Your task to perform on an android device: toggle sleep mode Image 0: 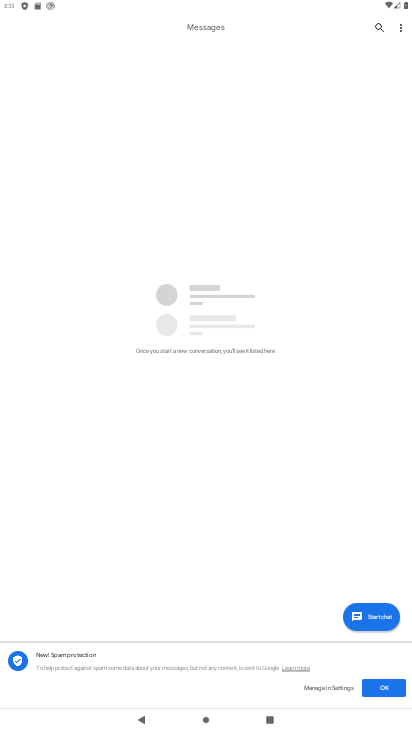
Step 0: press home button
Your task to perform on an android device: toggle sleep mode Image 1: 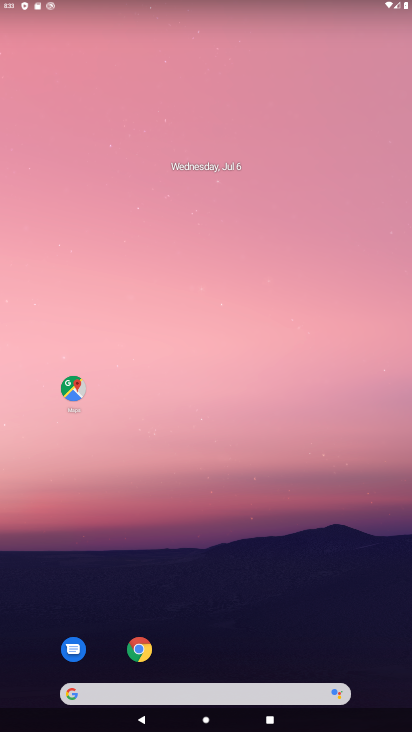
Step 1: drag from (219, 653) to (232, 18)
Your task to perform on an android device: toggle sleep mode Image 2: 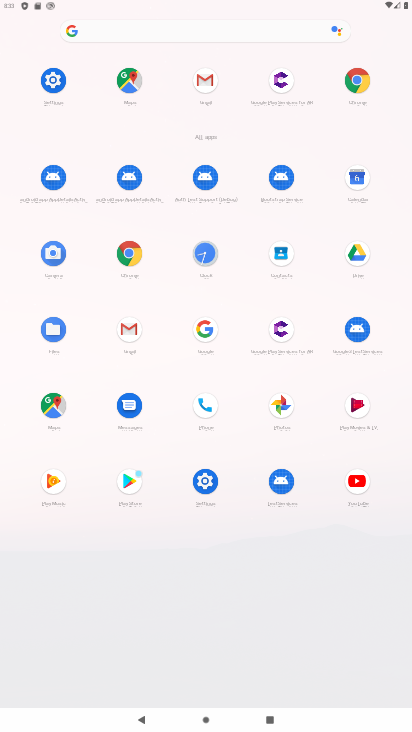
Step 2: click (202, 476)
Your task to perform on an android device: toggle sleep mode Image 3: 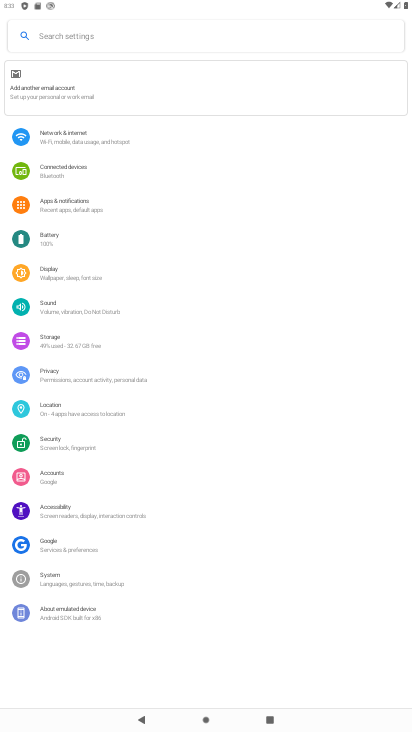
Step 3: click (63, 219)
Your task to perform on an android device: toggle sleep mode Image 4: 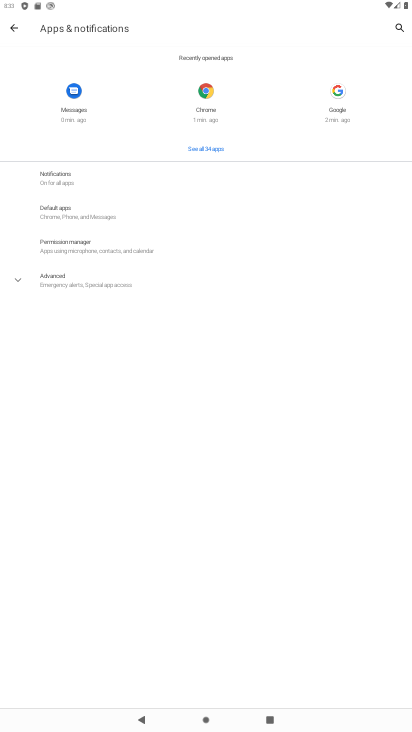
Step 4: click (15, 28)
Your task to perform on an android device: toggle sleep mode Image 5: 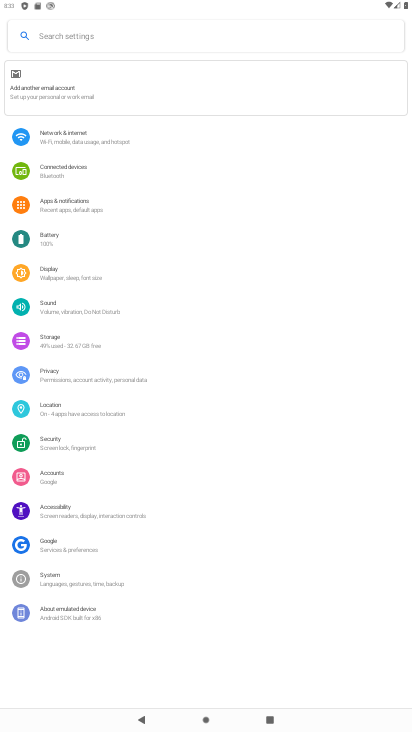
Step 5: click (58, 270)
Your task to perform on an android device: toggle sleep mode Image 6: 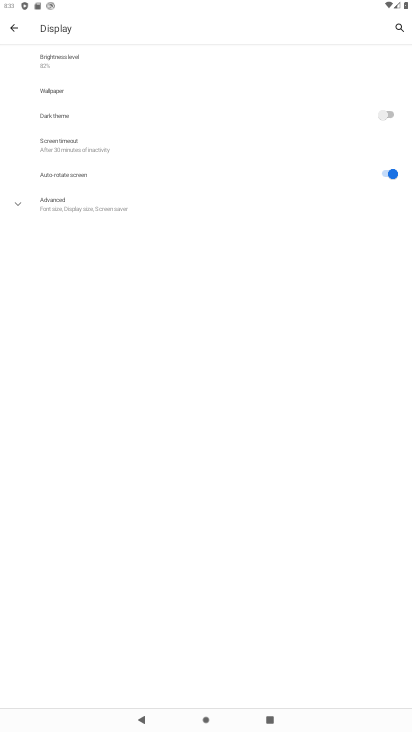
Step 6: click (15, 202)
Your task to perform on an android device: toggle sleep mode Image 7: 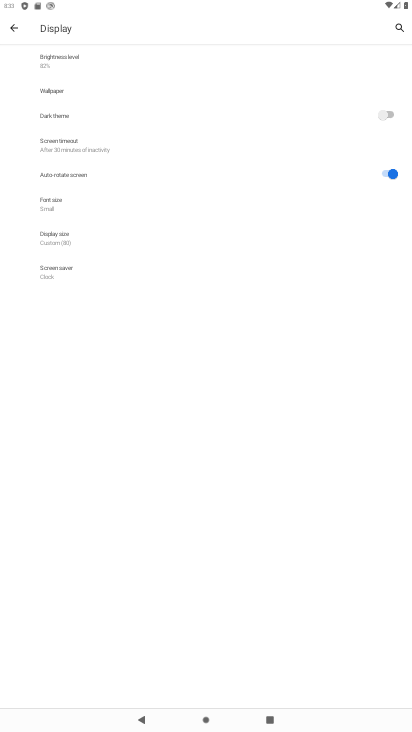
Step 7: task complete